Your task to perform on an android device: change the upload size in google photos Image 0: 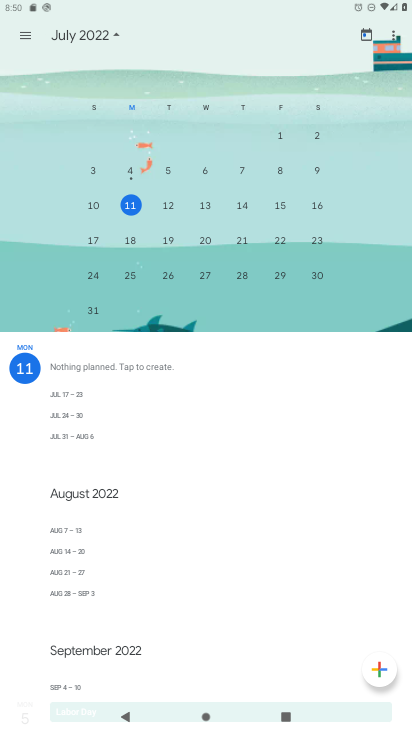
Step 0: press home button
Your task to perform on an android device: change the upload size in google photos Image 1: 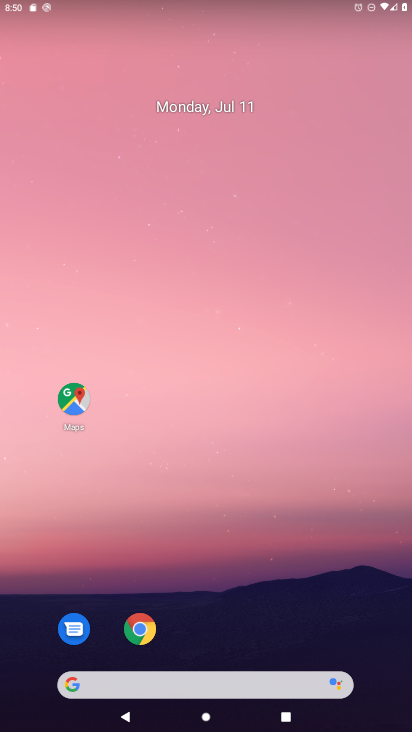
Step 1: drag from (219, 628) to (227, 182)
Your task to perform on an android device: change the upload size in google photos Image 2: 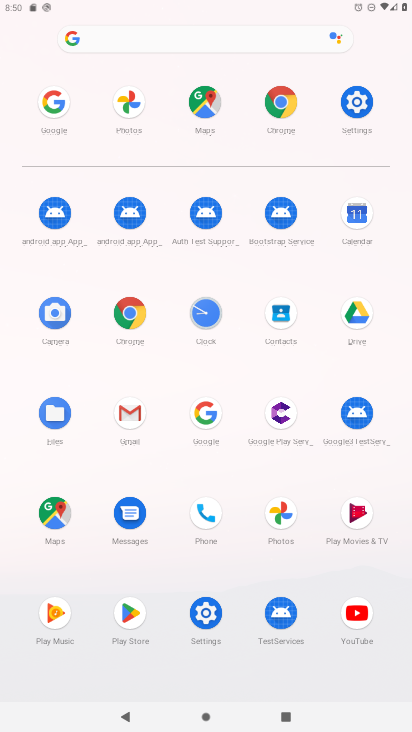
Step 2: click (133, 100)
Your task to perform on an android device: change the upload size in google photos Image 3: 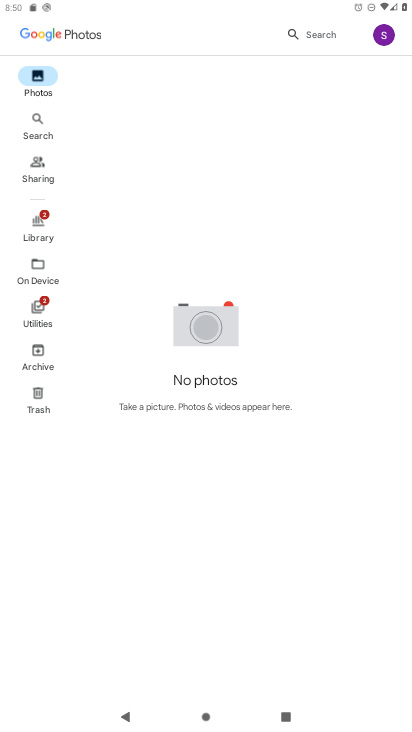
Step 3: click (387, 36)
Your task to perform on an android device: change the upload size in google photos Image 4: 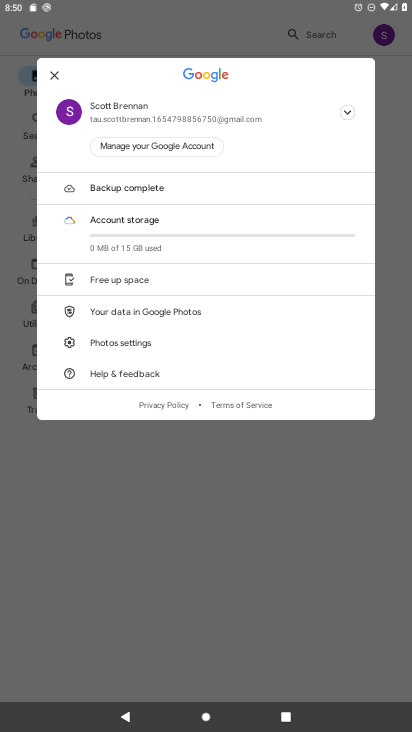
Step 4: click (135, 350)
Your task to perform on an android device: change the upload size in google photos Image 5: 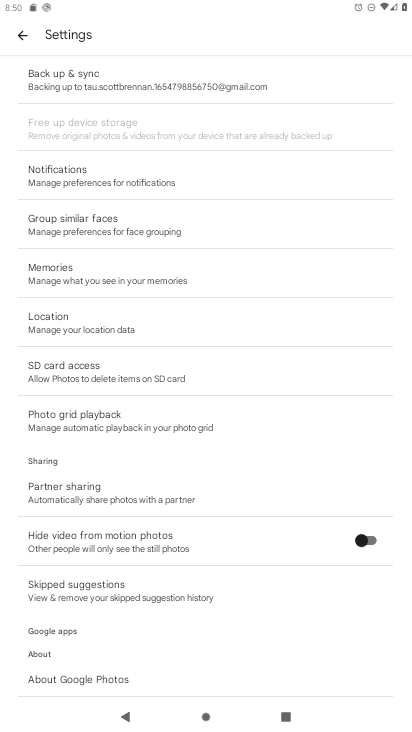
Step 5: click (100, 74)
Your task to perform on an android device: change the upload size in google photos Image 6: 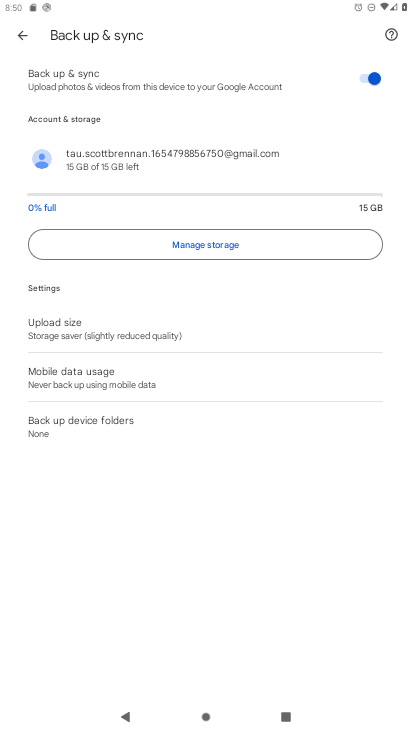
Step 6: click (93, 325)
Your task to perform on an android device: change the upload size in google photos Image 7: 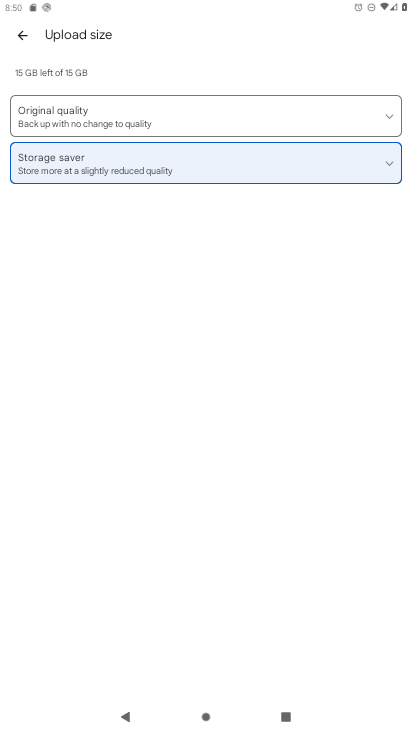
Step 7: click (84, 124)
Your task to perform on an android device: change the upload size in google photos Image 8: 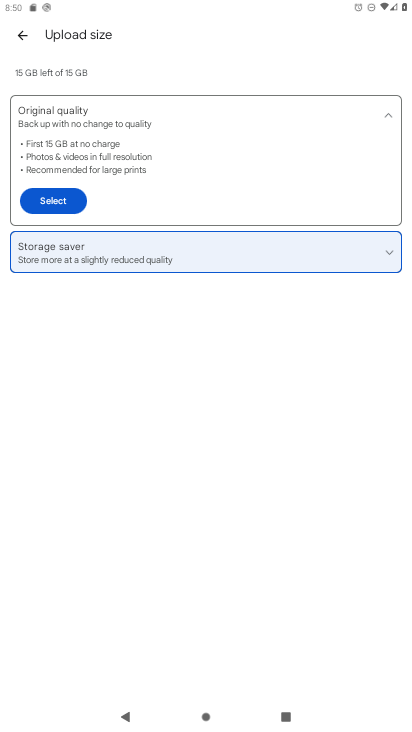
Step 8: click (53, 194)
Your task to perform on an android device: change the upload size in google photos Image 9: 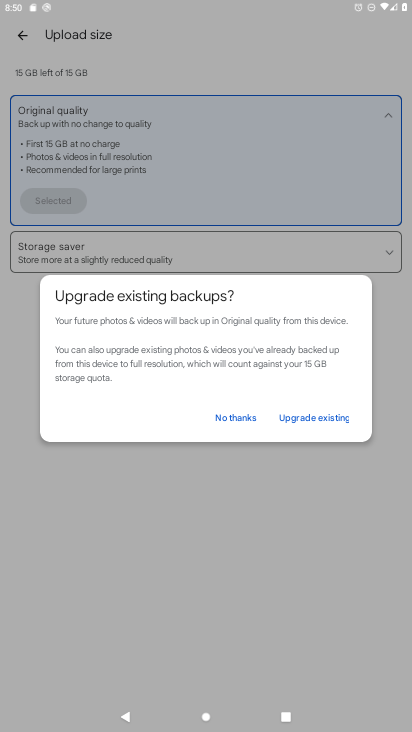
Step 9: click (241, 416)
Your task to perform on an android device: change the upload size in google photos Image 10: 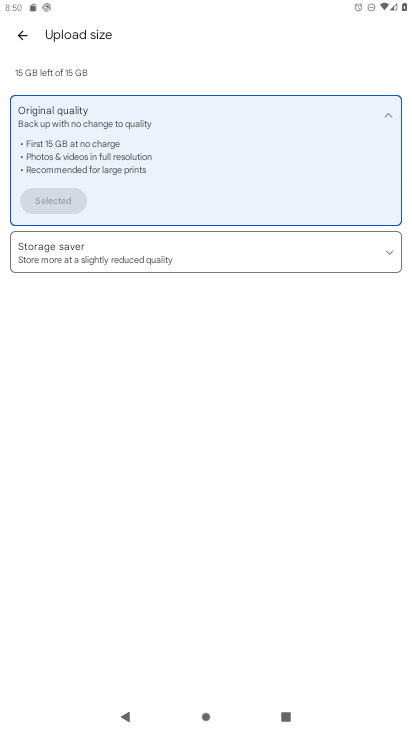
Step 10: task complete